Your task to perform on an android device: What's the weather going to be this weekend? Image 0: 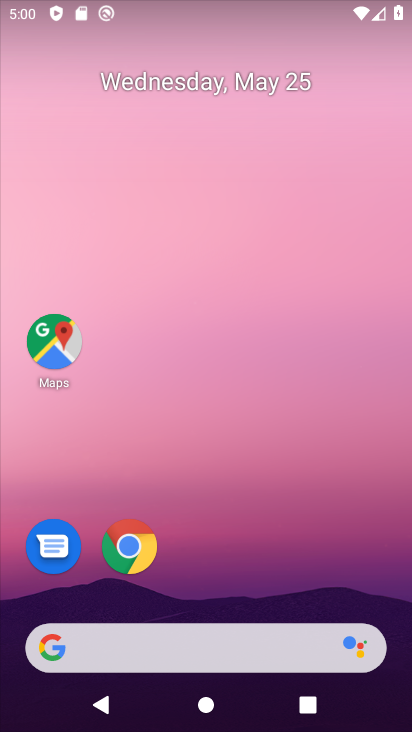
Step 0: click (201, 634)
Your task to perform on an android device: What's the weather going to be this weekend? Image 1: 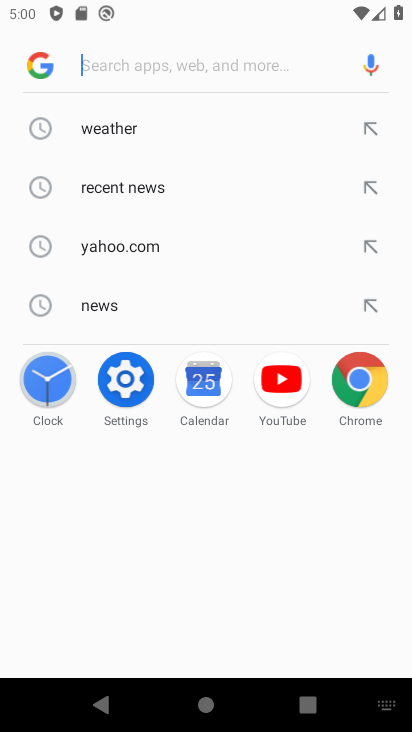
Step 1: click (127, 125)
Your task to perform on an android device: What's the weather going to be this weekend? Image 2: 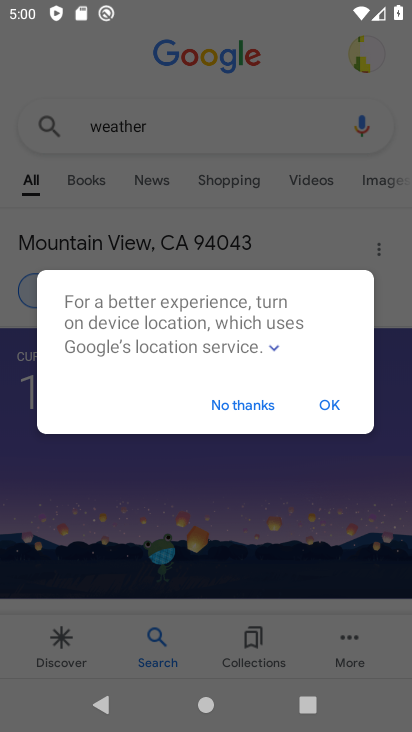
Step 2: click (331, 401)
Your task to perform on an android device: What's the weather going to be this weekend? Image 3: 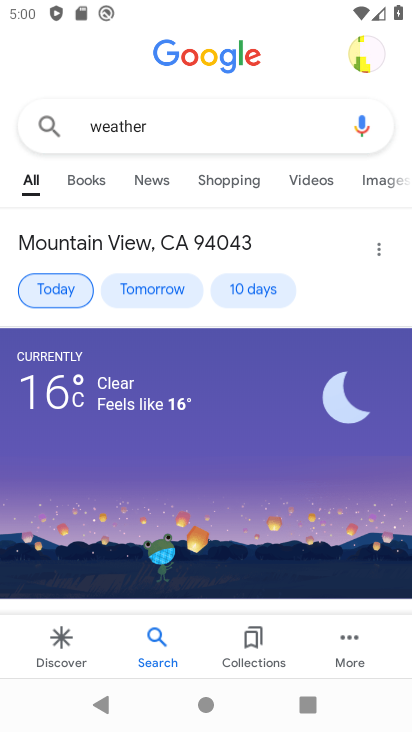
Step 3: click (284, 115)
Your task to perform on an android device: What's the weather going to be this weekend? Image 4: 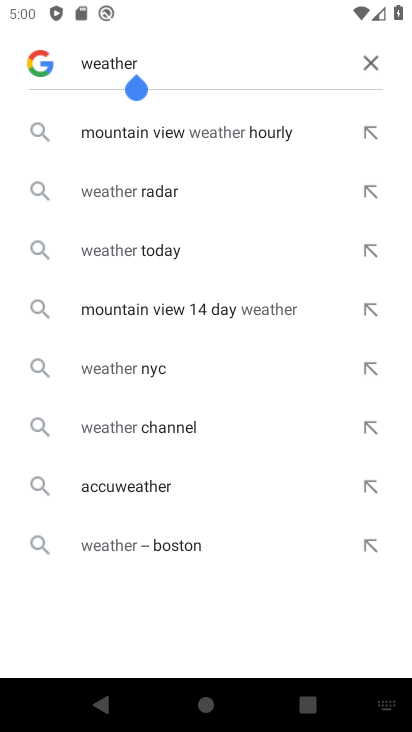
Step 4: click (368, 62)
Your task to perform on an android device: What's the weather going to be this weekend? Image 5: 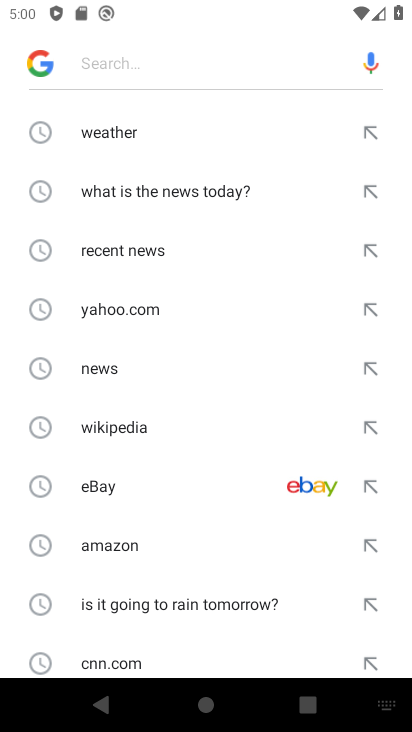
Step 5: type "What's the weather going to be this weekend?"
Your task to perform on an android device: What's the weather going to be this weekend? Image 6: 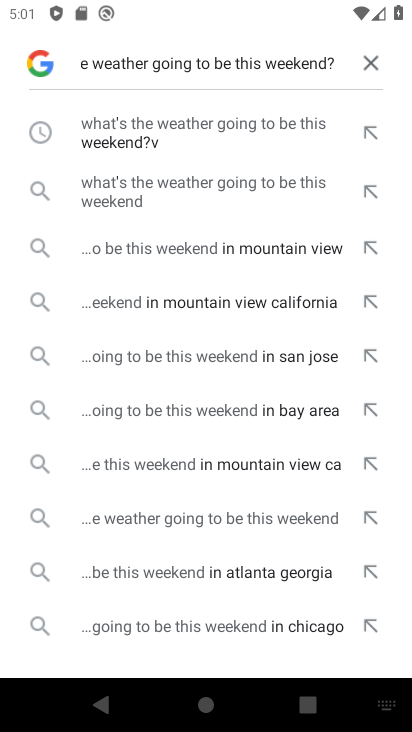
Step 6: click (267, 129)
Your task to perform on an android device: What's the weather going to be this weekend? Image 7: 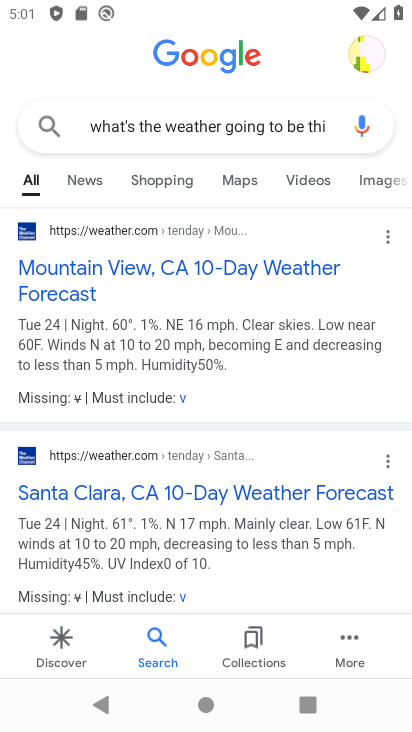
Step 7: task complete